Your task to perform on an android device: Go to display settings Image 0: 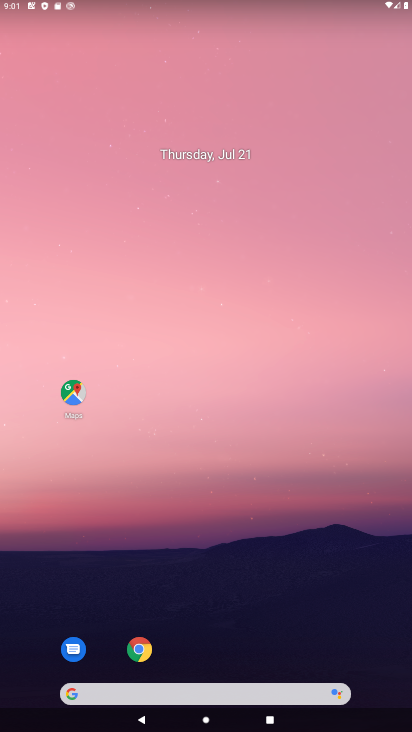
Step 0: drag from (199, 596) to (221, 139)
Your task to perform on an android device: Go to display settings Image 1: 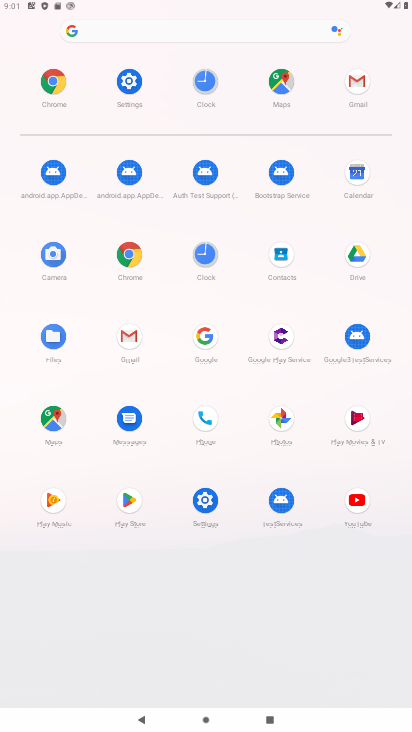
Step 1: click (207, 503)
Your task to perform on an android device: Go to display settings Image 2: 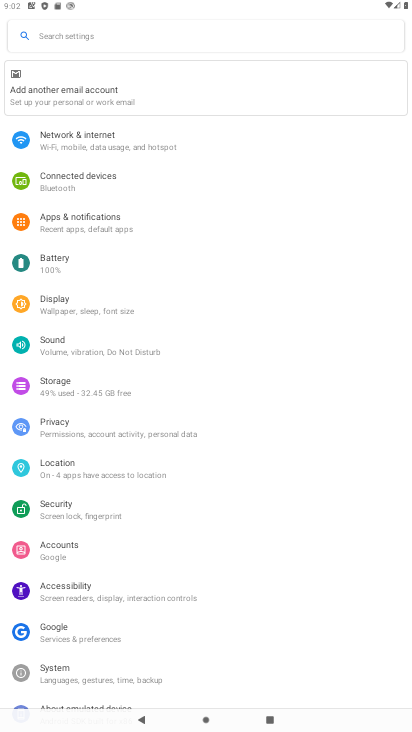
Step 2: click (99, 301)
Your task to perform on an android device: Go to display settings Image 3: 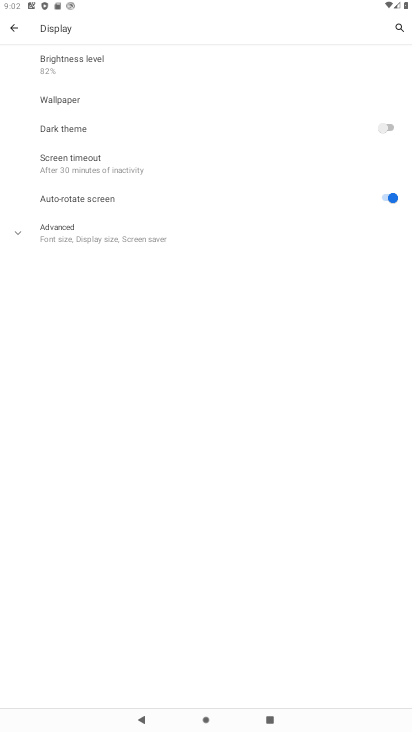
Step 3: task complete